Your task to perform on an android device: Open display settings Image 0: 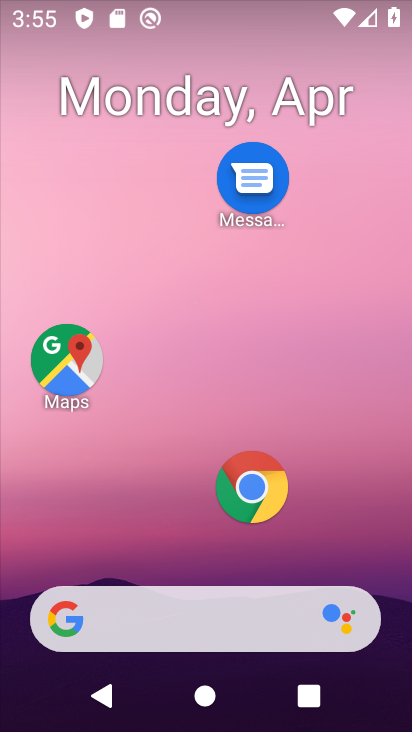
Step 0: drag from (159, 536) to (190, 0)
Your task to perform on an android device: Open display settings Image 1: 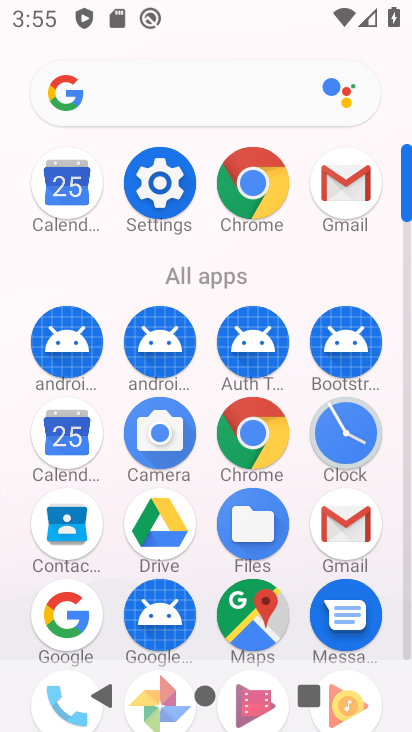
Step 1: click (161, 197)
Your task to perform on an android device: Open display settings Image 2: 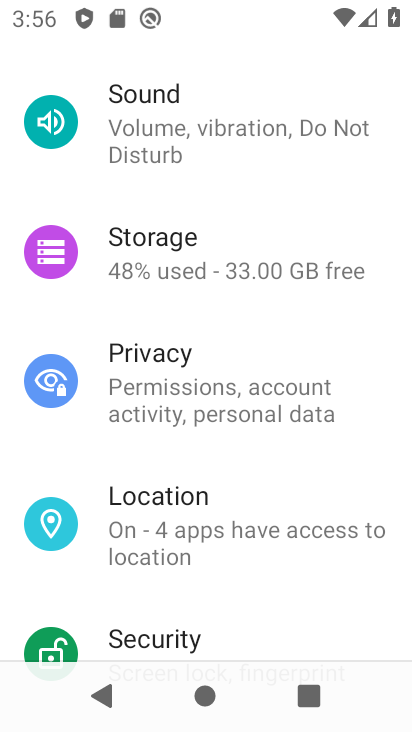
Step 2: drag from (200, 196) to (205, 591)
Your task to perform on an android device: Open display settings Image 3: 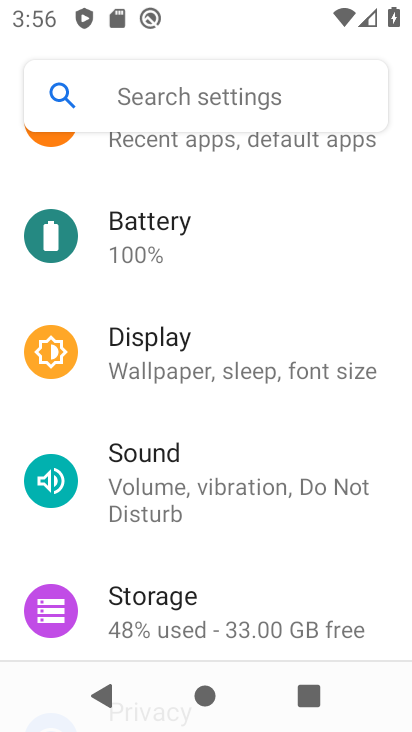
Step 3: click (185, 363)
Your task to perform on an android device: Open display settings Image 4: 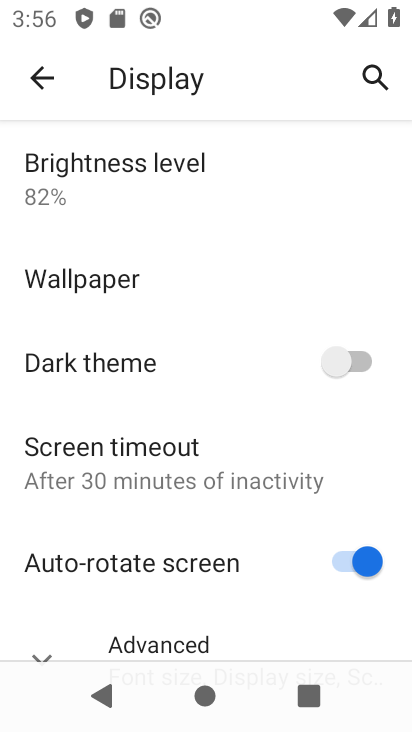
Step 4: task complete